Your task to perform on an android device: What's the weather going to be this weekend? Image 0: 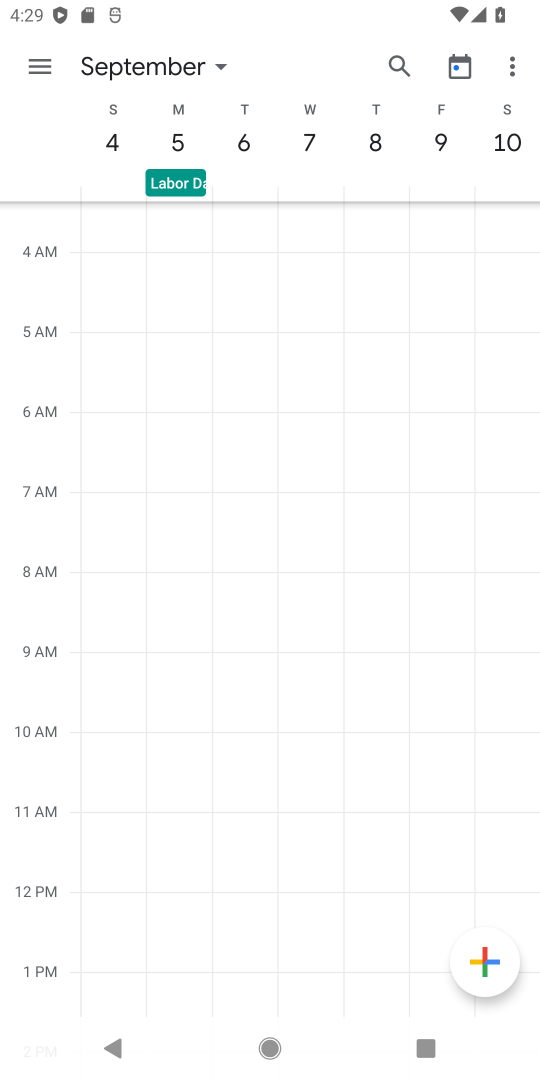
Step 0: press home button
Your task to perform on an android device: What's the weather going to be this weekend? Image 1: 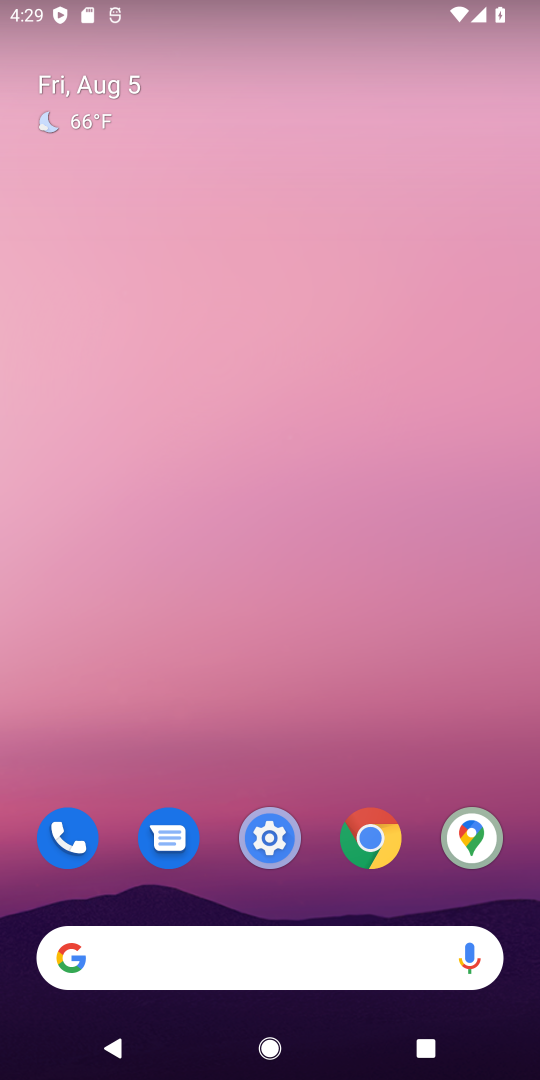
Step 1: click (365, 846)
Your task to perform on an android device: What's the weather going to be this weekend? Image 2: 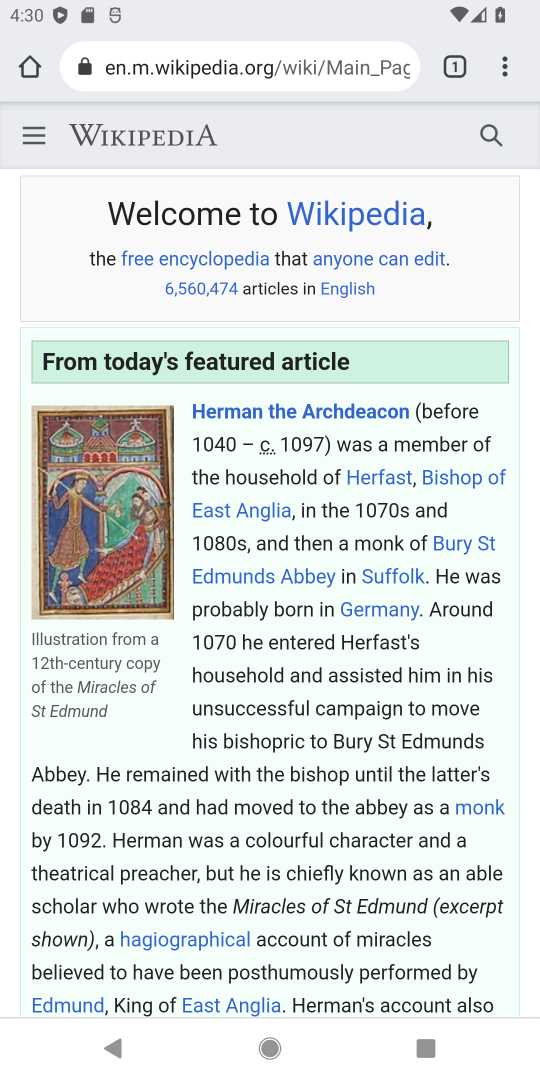
Step 2: click (515, 62)
Your task to perform on an android device: What's the weather going to be this weekend? Image 3: 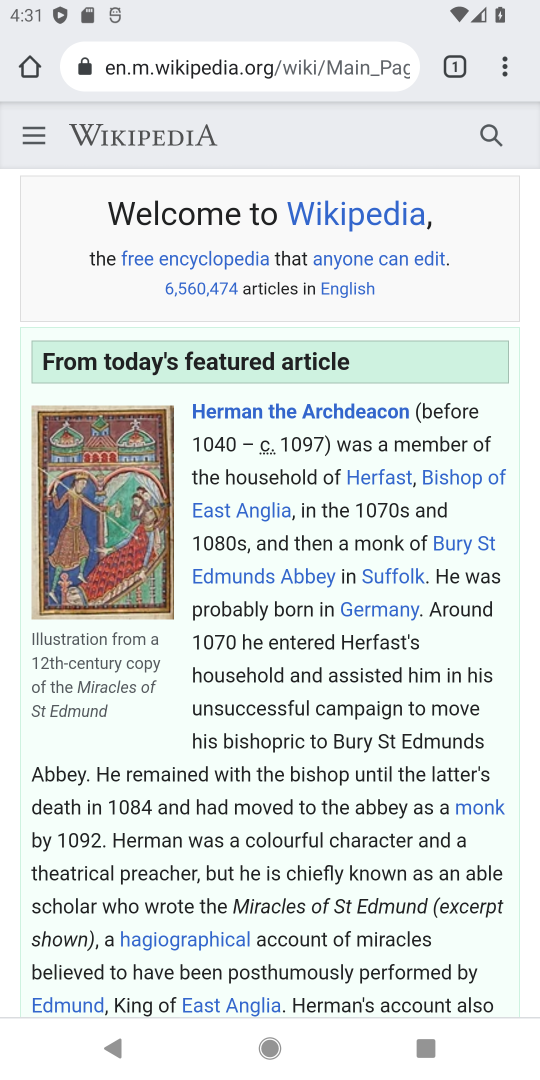
Step 3: click (513, 62)
Your task to perform on an android device: What's the weather going to be this weekend? Image 4: 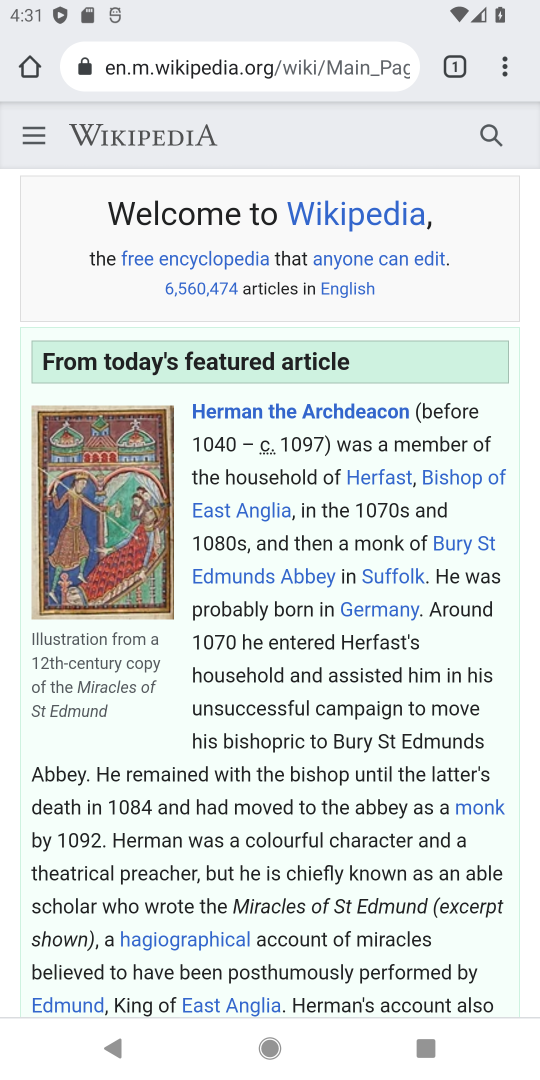
Step 4: click (501, 50)
Your task to perform on an android device: What's the weather going to be this weekend? Image 5: 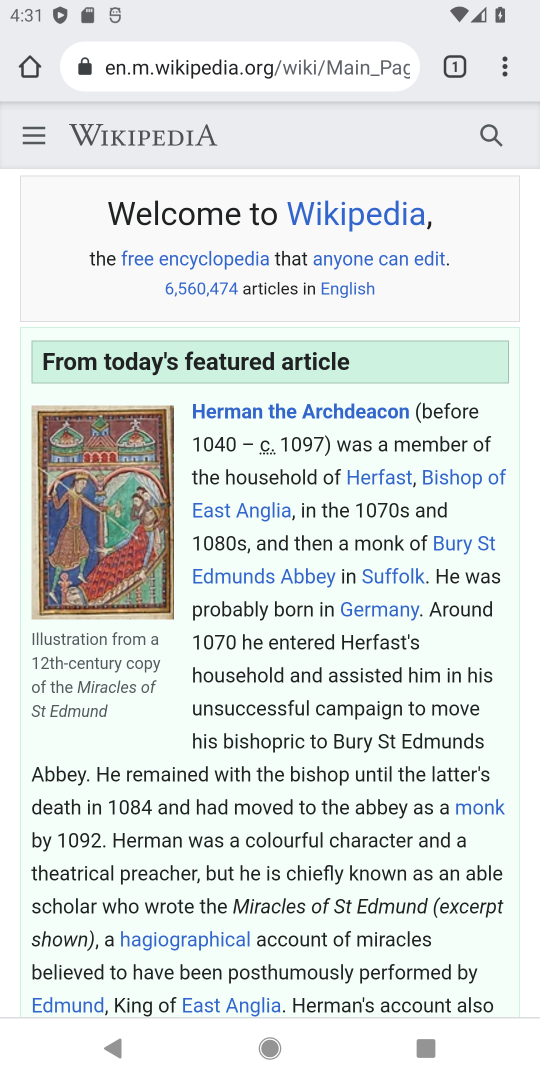
Step 5: click (507, 68)
Your task to perform on an android device: What's the weather going to be this weekend? Image 6: 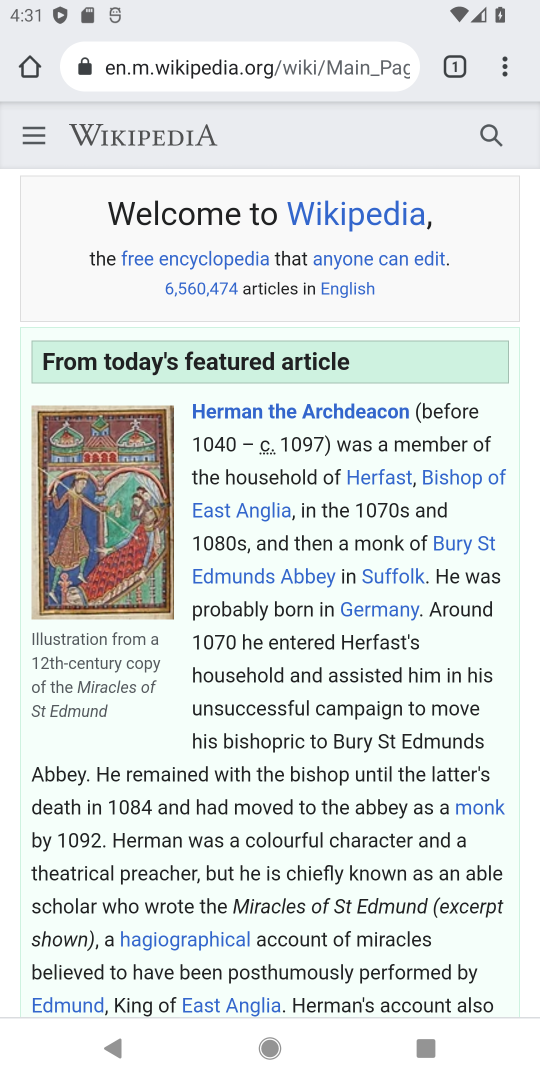
Step 6: click (502, 84)
Your task to perform on an android device: What's the weather going to be this weekend? Image 7: 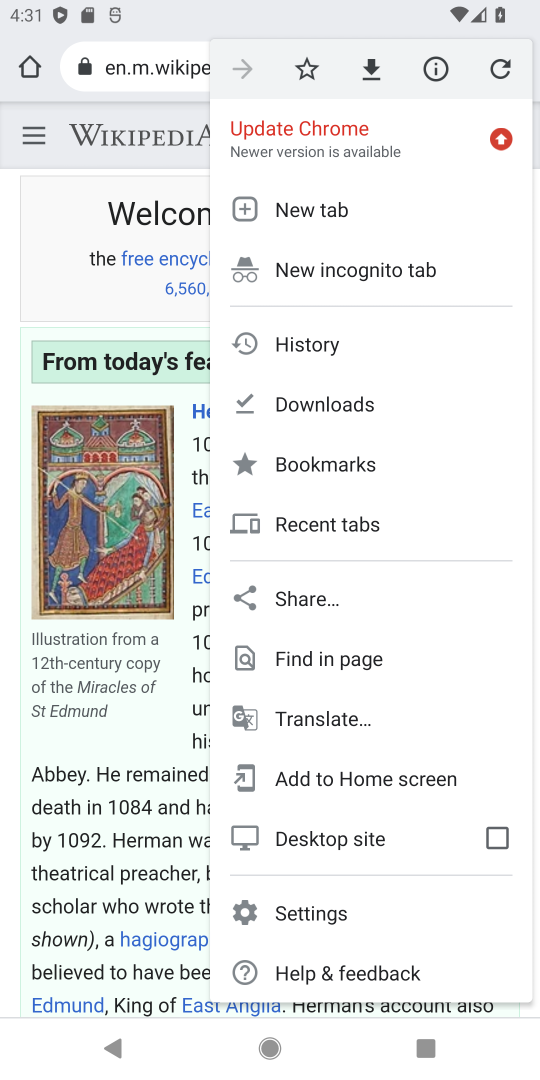
Step 7: click (350, 207)
Your task to perform on an android device: What's the weather going to be this weekend? Image 8: 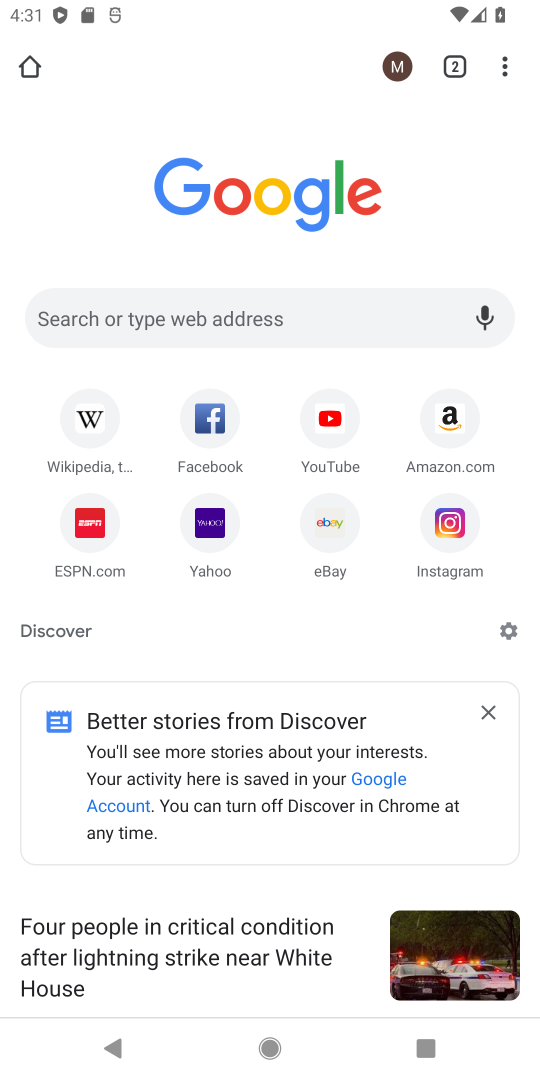
Step 8: click (312, 322)
Your task to perform on an android device: What's the weather going to be this weekend? Image 9: 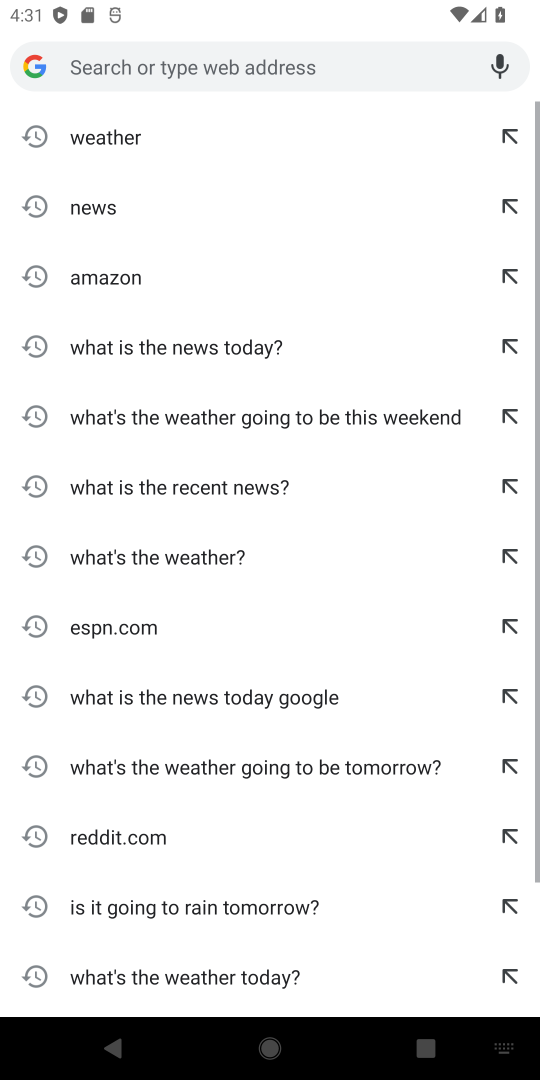
Step 9: type "What's the weather going to be this weekend? "
Your task to perform on an android device: What's the weather going to be this weekend? Image 10: 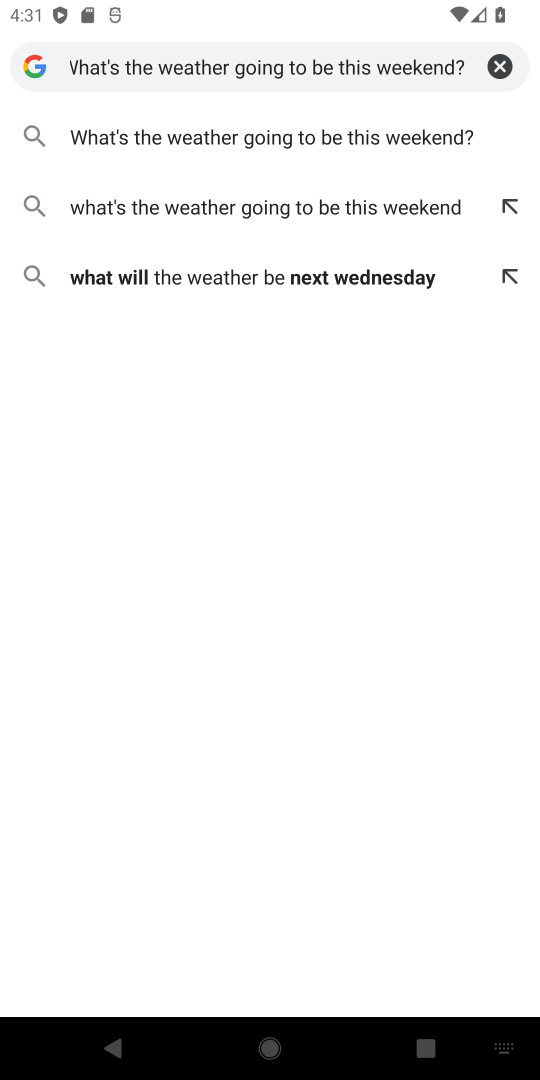
Step 10: click (315, 133)
Your task to perform on an android device: What's the weather going to be this weekend? Image 11: 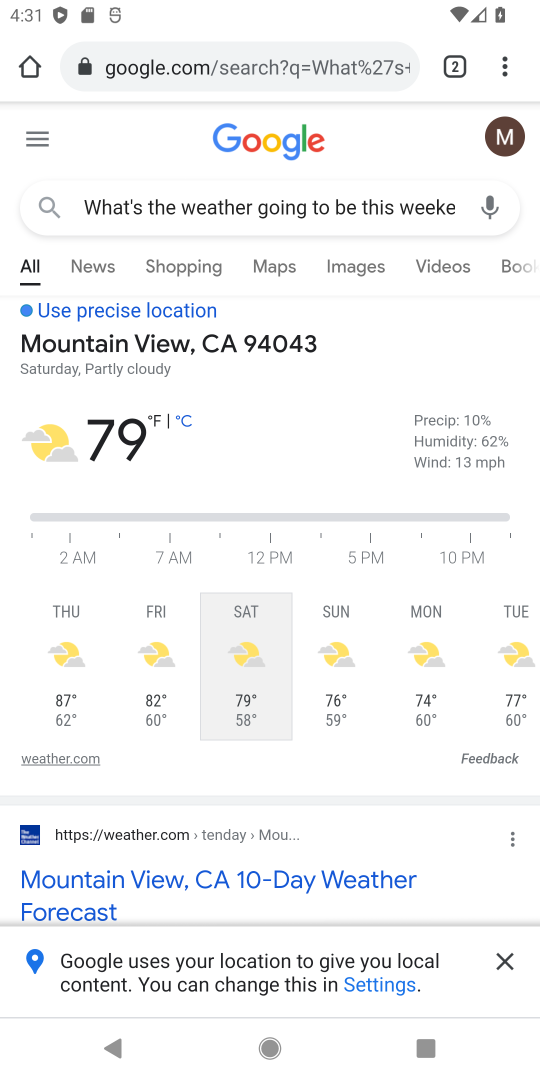
Step 11: task complete